Your task to perform on an android device: change notification settings in the gmail app Image 0: 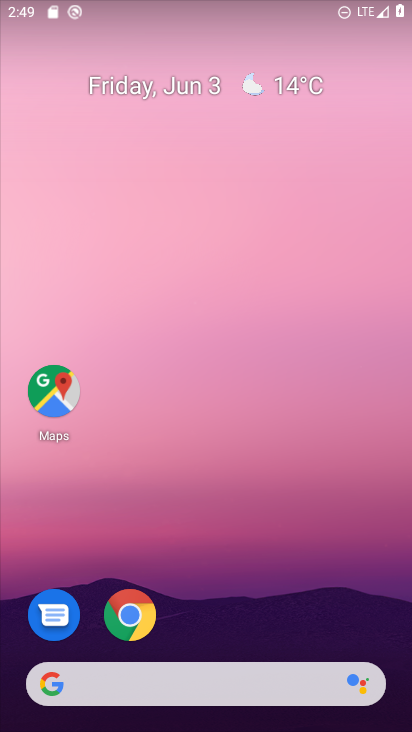
Step 0: drag from (253, 623) to (266, 277)
Your task to perform on an android device: change notification settings in the gmail app Image 1: 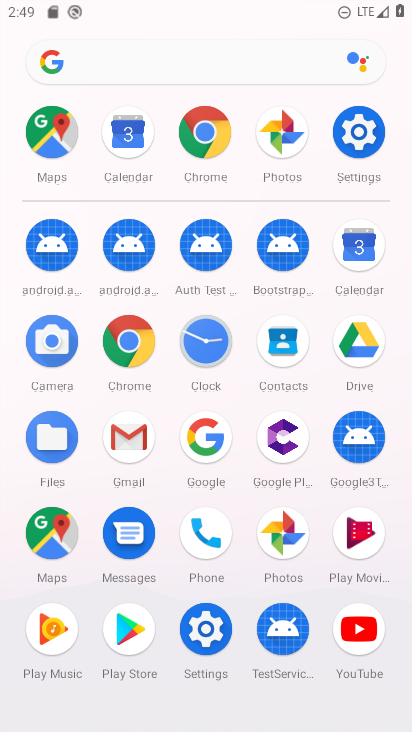
Step 1: click (103, 426)
Your task to perform on an android device: change notification settings in the gmail app Image 2: 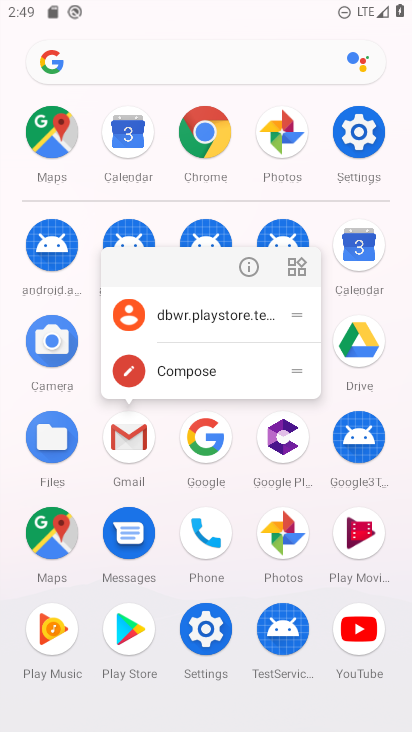
Step 2: click (259, 261)
Your task to perform on an android device: change notification settings in the gmail app Image 3: 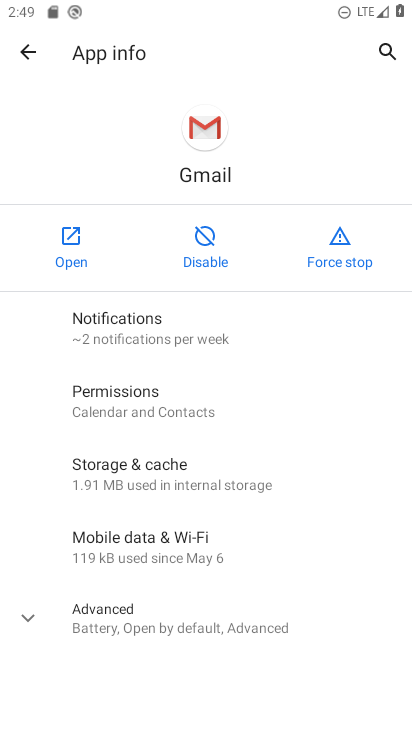
Step 3: click (78, 234)
Your task to perform on an android device: change notification settings in the gmail app Image 4: 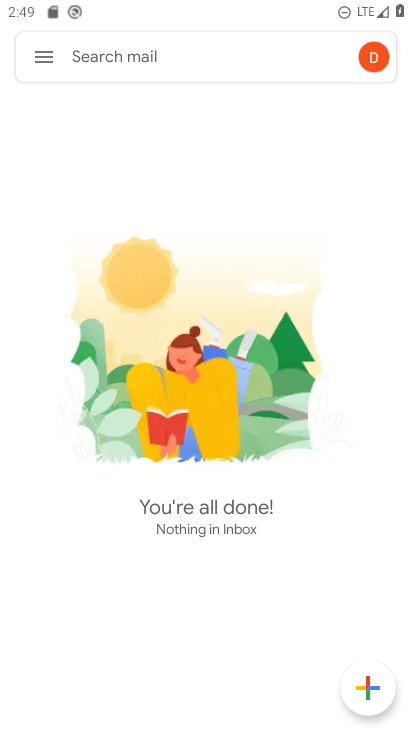
Step 4: click (46, 55)
Your task to perform on an android device: change notification settings in the gmail app Image 5: 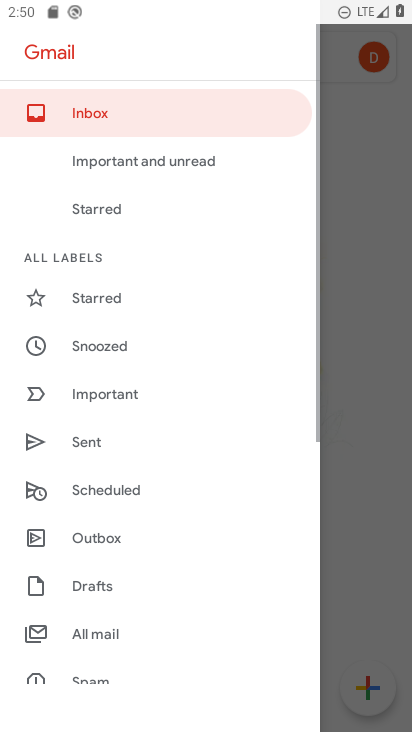
Step 5: drag from (157, 608) to (218, 58)
Your task to perform on an android device: change notification settings in the gmail app Image 6: 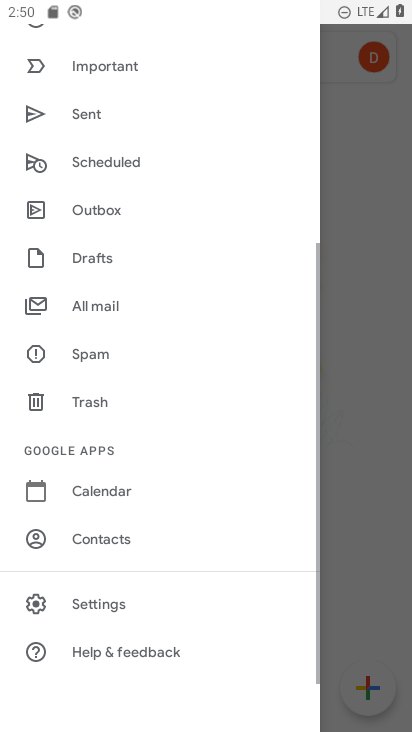
Step 6: click (105, 622)
Your task to perform on an android device: change notification settings in the gmail app Image 7: 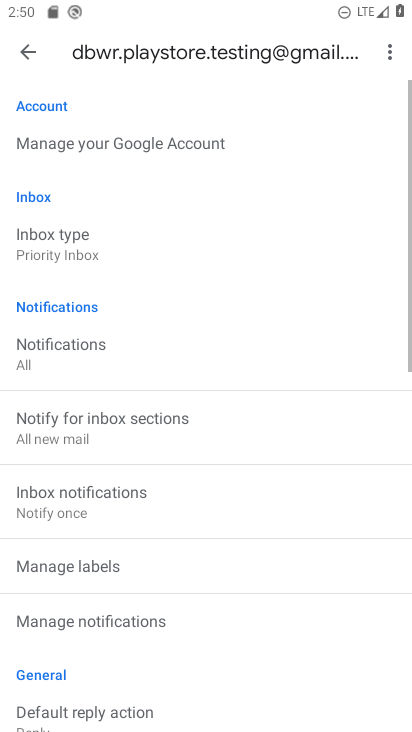
Step 7: drag from (182, 554) to (192, 206)
Your task to perform on an android device: change notification settings in the gmail app Image 8: 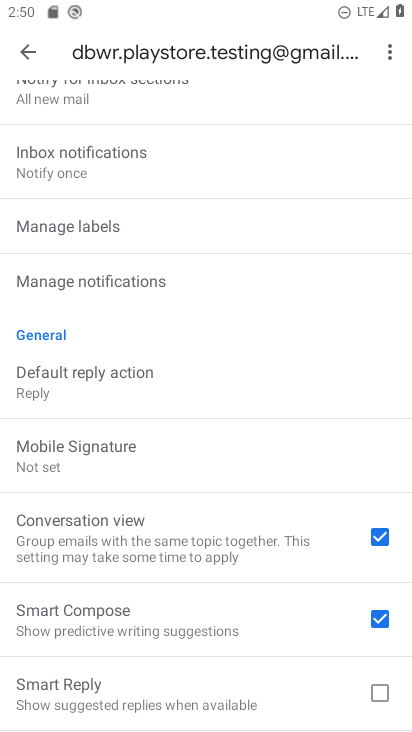
Step 8: click (130, 272)
Your task to perform on an android device: change notification settings in the gmail app Image 9: 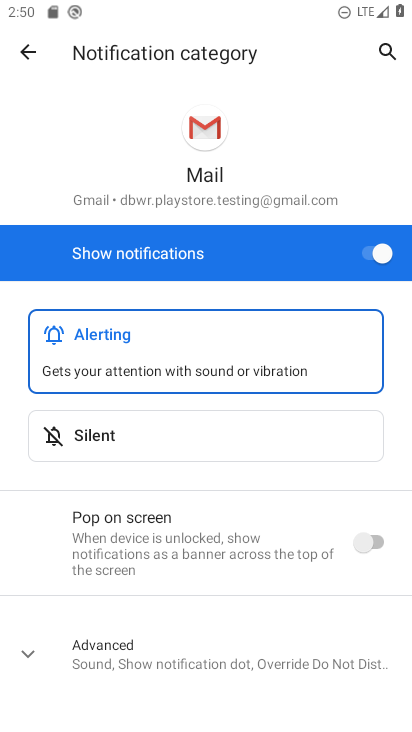
Step 9: drag from (198, 475) to (301, 55)
Your task to perform on an android device: change notification settings in the gmail app Image 10: 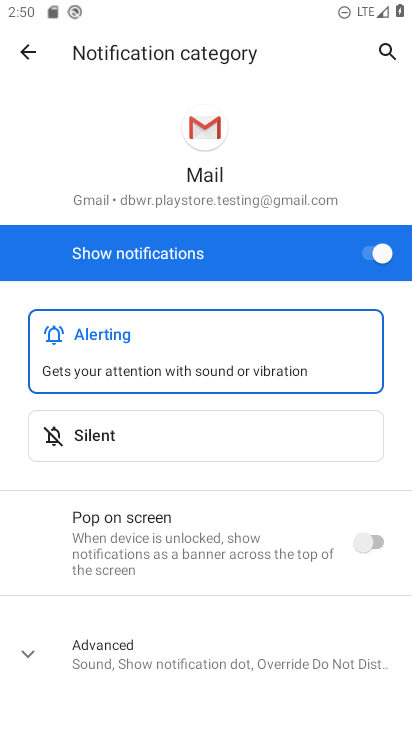
Step 10: drag from (234, 544) to (252, 189)
Your task to perform on an android device: change notification settings in the gmail app Image 11: 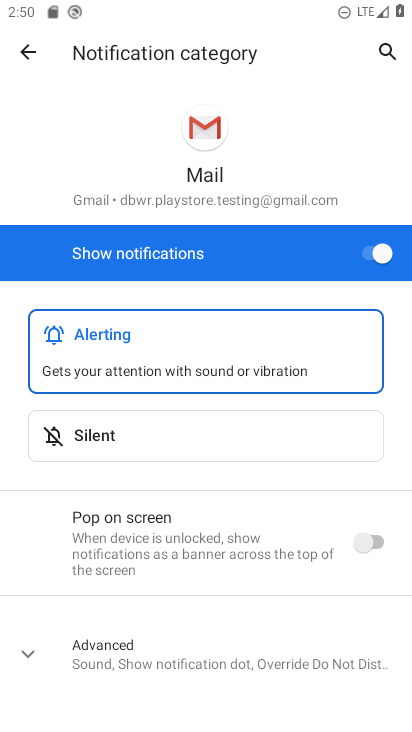
Step 11: drag from (234, 586) to (246, 313)
Your task to perform on an android device: change notification settings in the gmail app Image 12: 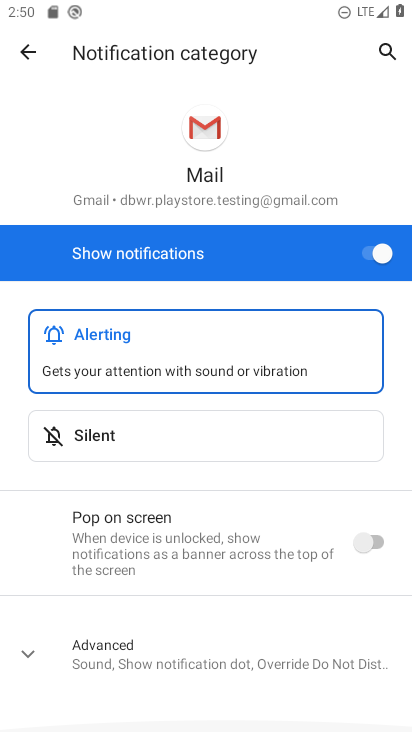
Step 12: drag from (246, 312) to (348, 726)
Your task to perform on an android device: change notification settings in the gmail app Image 13: 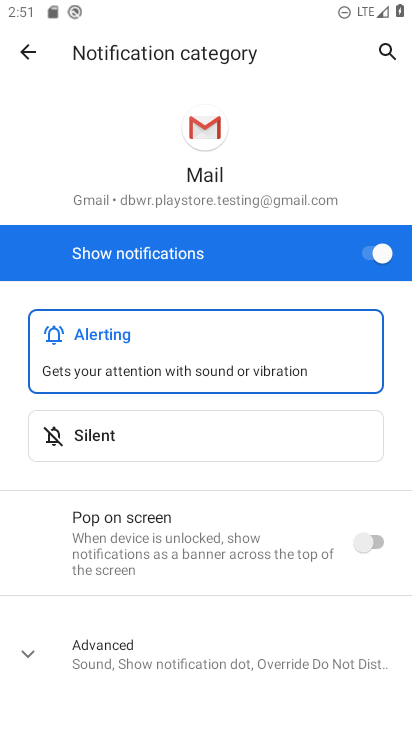
Step 13: drag from (132, 467) to (217, 5)
Your task to perform on an android device: change notification settings in the gmail app Image 14: 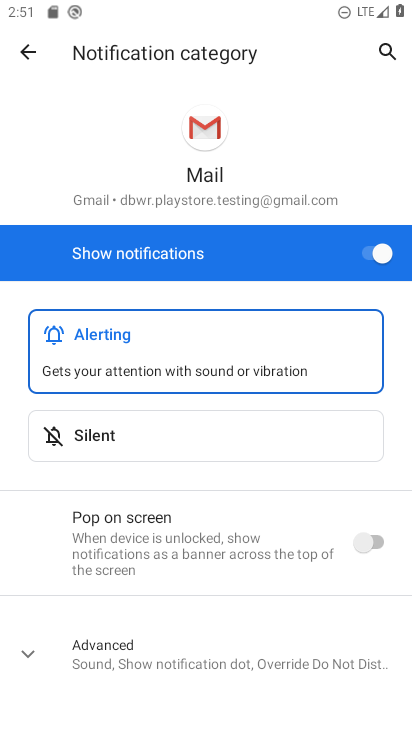
Step 14: drag from (251, 314) to (281, 724)
Your task to perform on an android device: change notification settings in the gmail app Image 15: 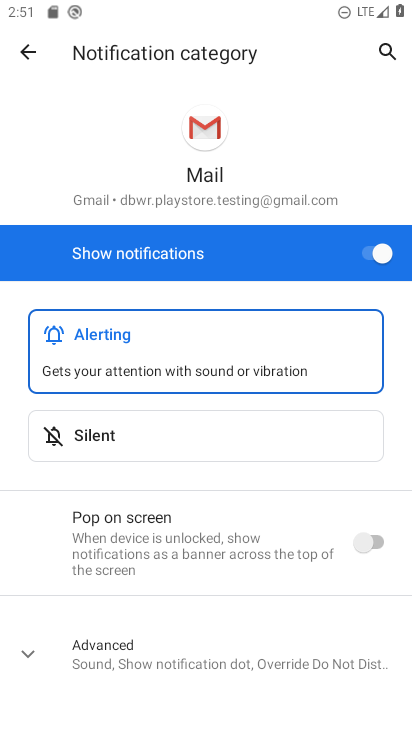
Step 15: drag from (191, 612) to (225, 224)
Your task to perform on an android device: change notification settings in the gmail app Image 16: 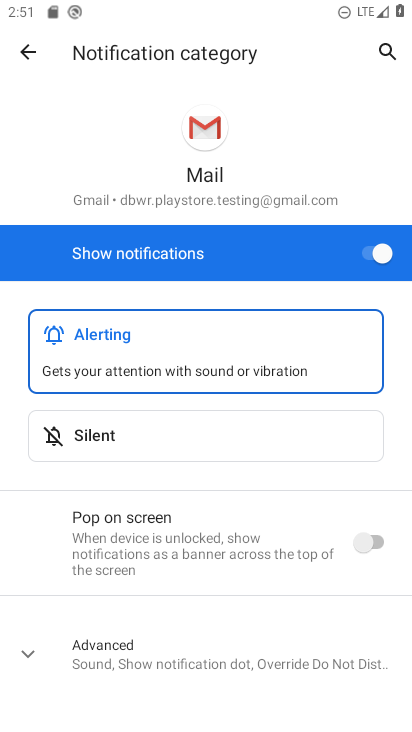
Step 16: drag from (196, 336) to (294, 639)
Your task to perform on an android device: change notification settings in the gmail app Image 17: 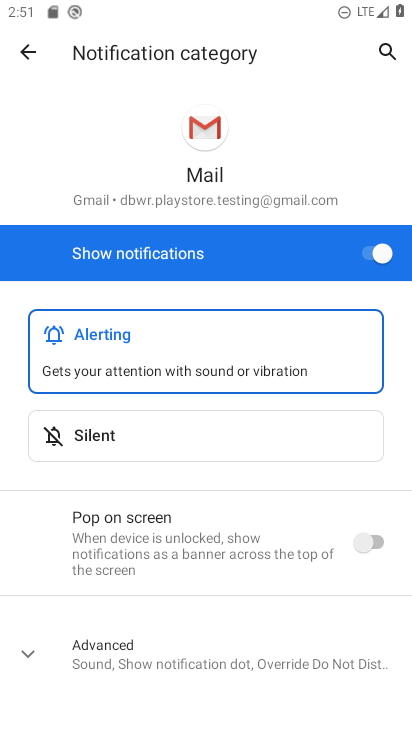
Step 17: drag from (220, 523) to (229, 164)
Your task to perform on an android device: change notification settings in the gmail app Image 18: 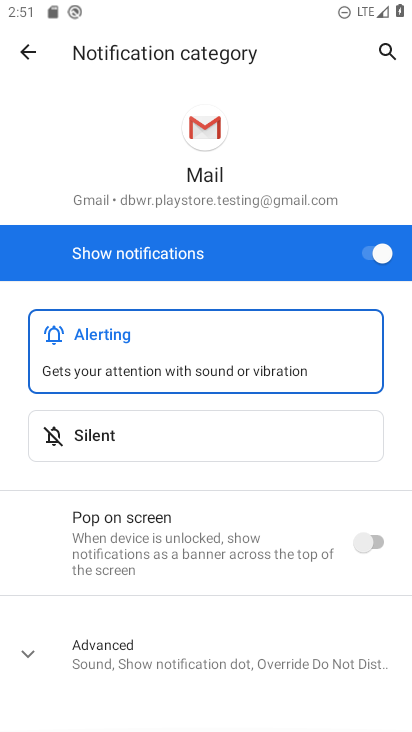
Step 18: drag from (200, 291) to (321, 608)
Your task to perform on an android device: change notification settings in the gmail app Image 19: 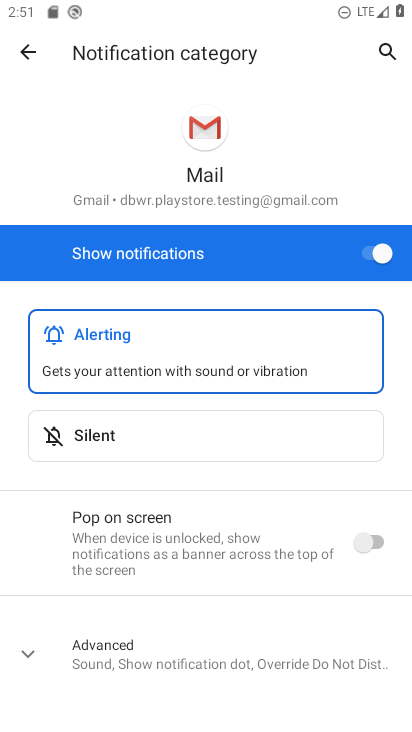
Step 19: drag from (133, 419) to (295, 686)
Your task to perform on an android device: change notification settings in the gmail app Image 20: 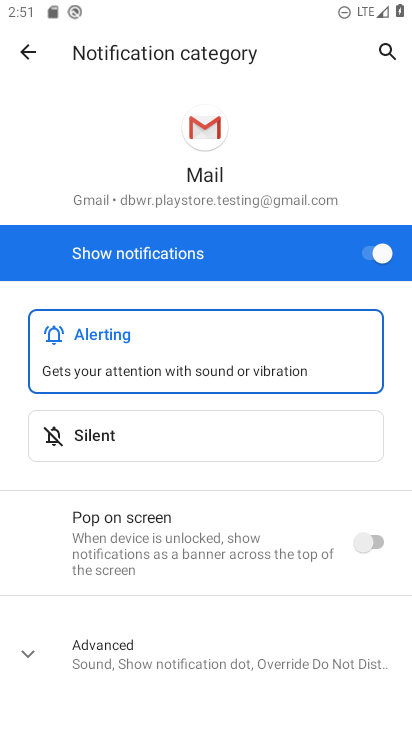
Step 20: click (11, 41)
Your task to perform on an android device: change notification settings in the gmail app Image 21: 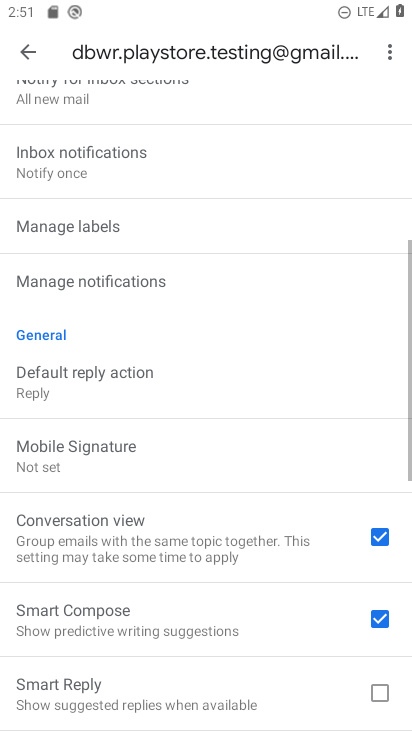
Step 21: click (115, 290)
Your task to perform on an android device: change notification settings in the gmail app Image 22: 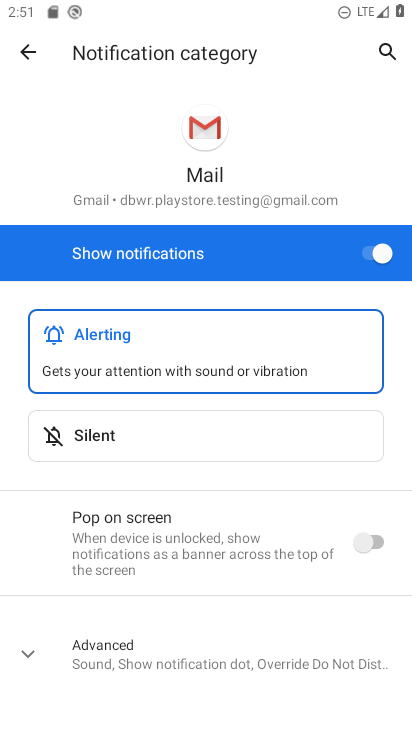
Step 22: click (371, 262)
Your task to perform on an android device: change notification settings in the gmail app Image 23: 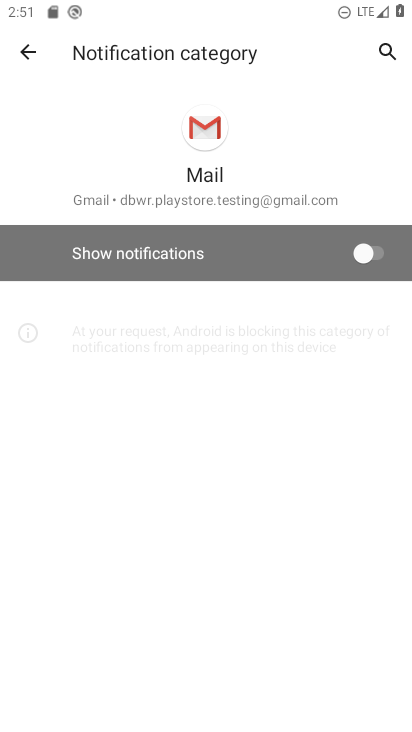
Step 23: task complete